Your task to perform on an android device: Open Yahoo.com Image 0: 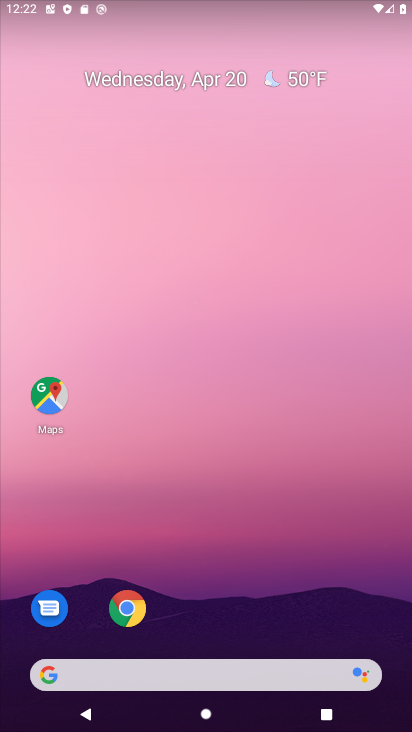
Step 0: click (147, 30)
Your task to perform on an android device: Open Yahoo.com Image 1: 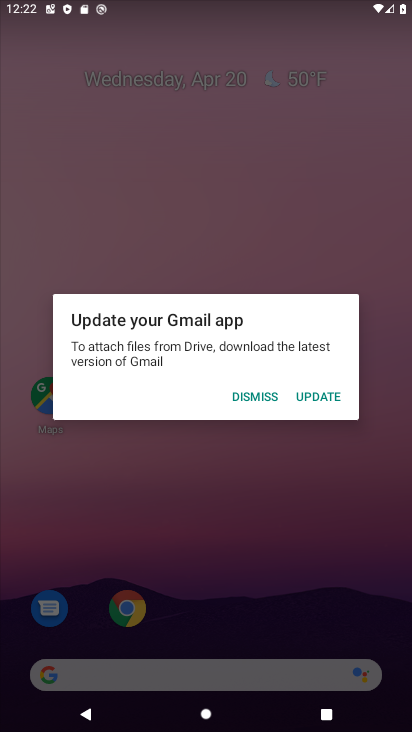
Step 1: click (246, 399)
Your task to perform on an android device: Open Yahoo.com Image 2: 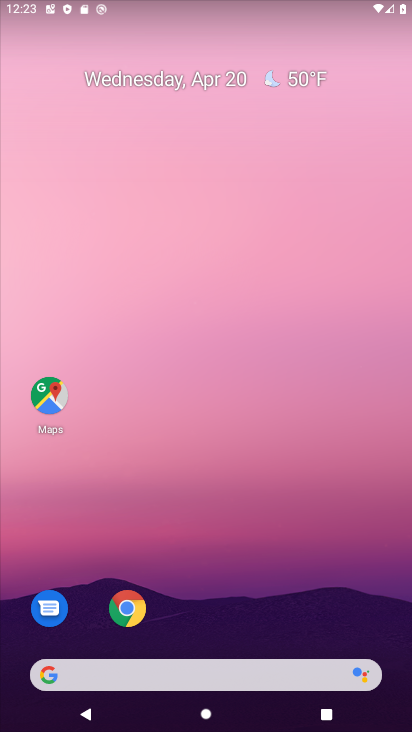
Step 2: click (137, 607)
Your task to perform on an android device: Open Yahoo.com Image 3: 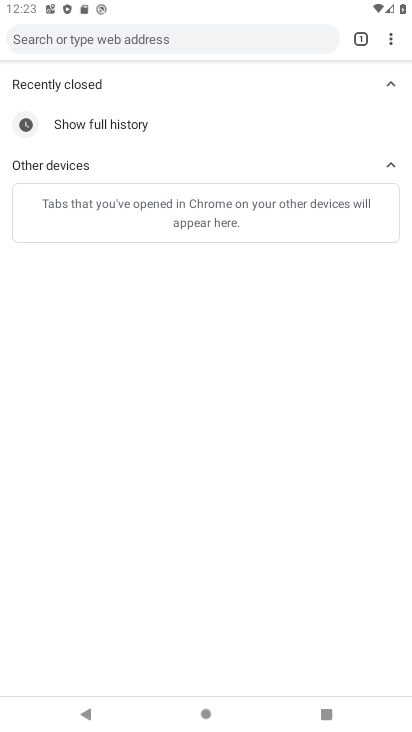
Step 3: click (159, 35)
Your task to perform on an android device: Open Yahoo.com Image 4: 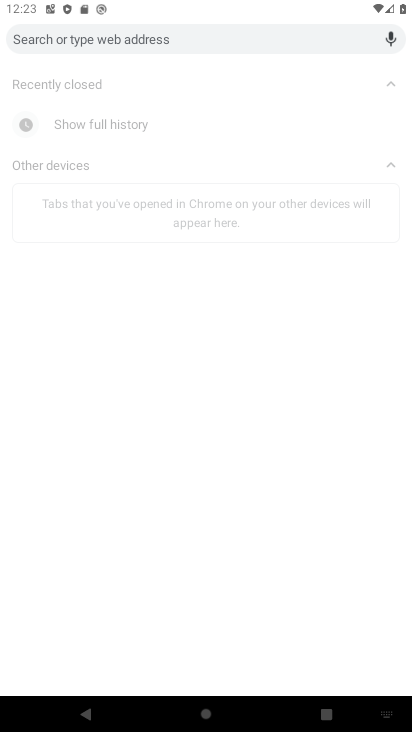
Step 4: type " Yahoo.com"
Your task to perform on an android device: Open Yahoo.com Image 5: 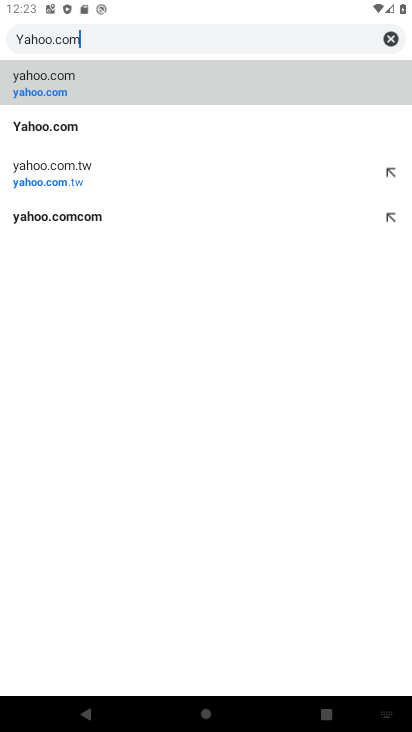
Step 5: click (71, 83)
Your task to perform on an android device: Open Yahoo.com Image 6: 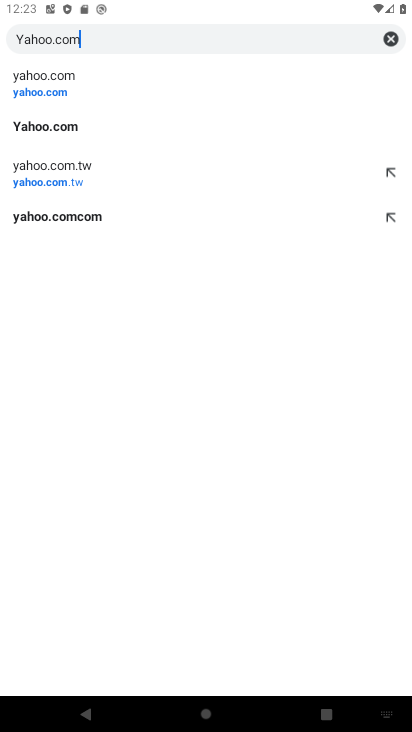
Step 6: click (71, 83)
Your task to perform on an android device: Open Yahoo.com Image 7: 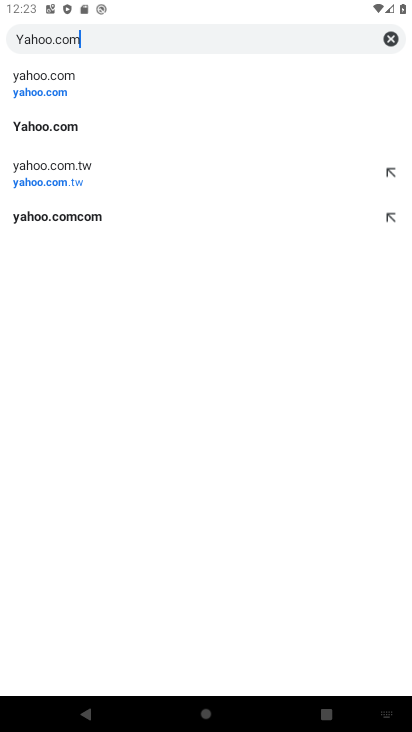
Step 7: click (71, 83)
Your task to perform on an android device: Open Yahoo.com Image 8: 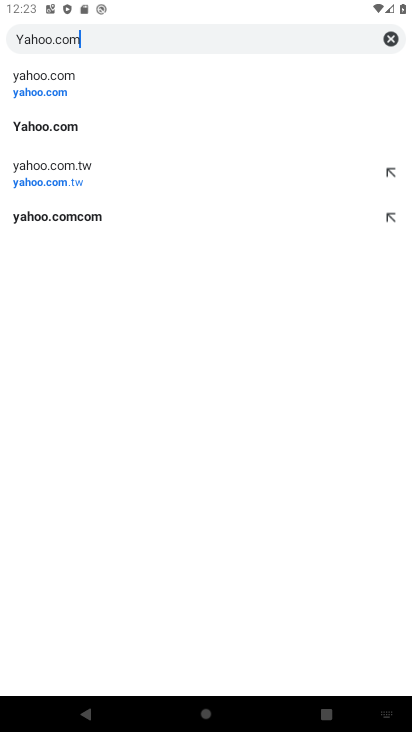
Step 8: click (192, 162)
Your task to perform on an android device: Open Yahoo.com Image 9: 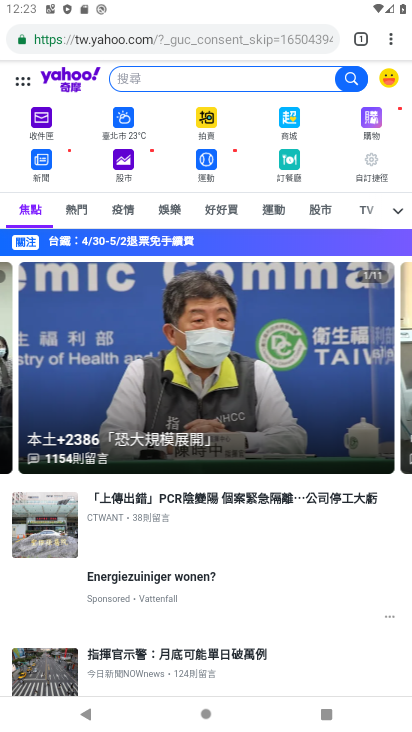
Step 9: task complete